Your task to perform on an android device: turn notification dots on Image 0: 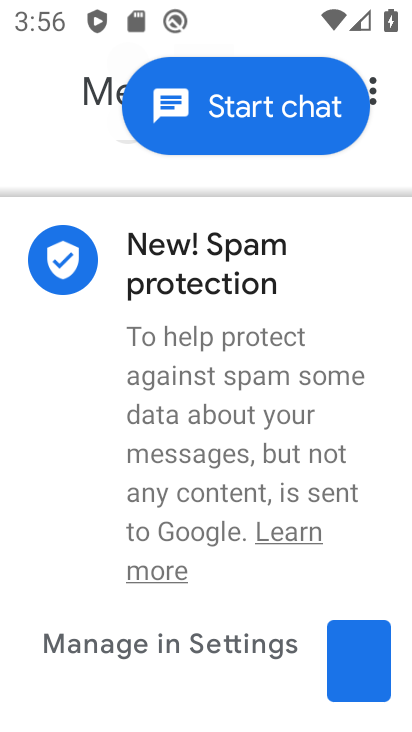
Step 0: press home button
Your task to perform on an android device: turn notification dots on Image 1: 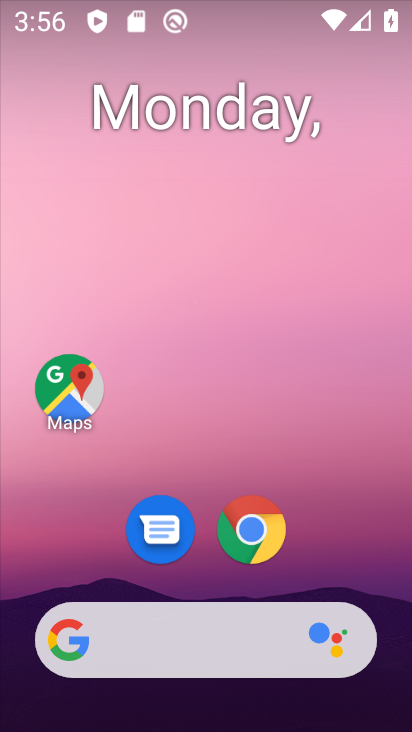
Step 1: drag from (210, 595) to (337, 10)
Your task to perform on an android device: turn notification dots on Image 2: 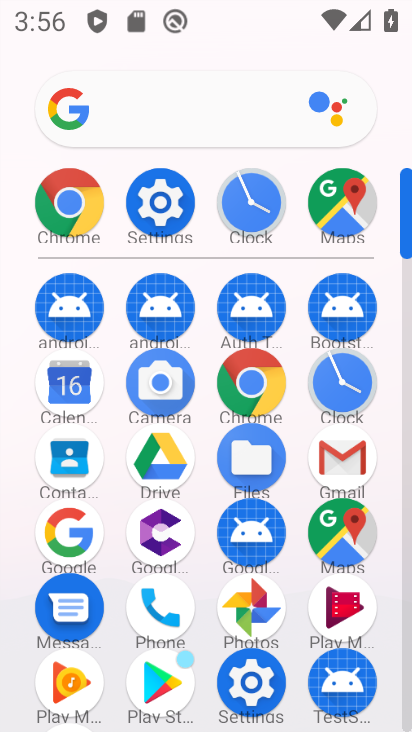
Step 2: click (167, 210)
Your task to perform on an android device: turn notification dots on Image 3: 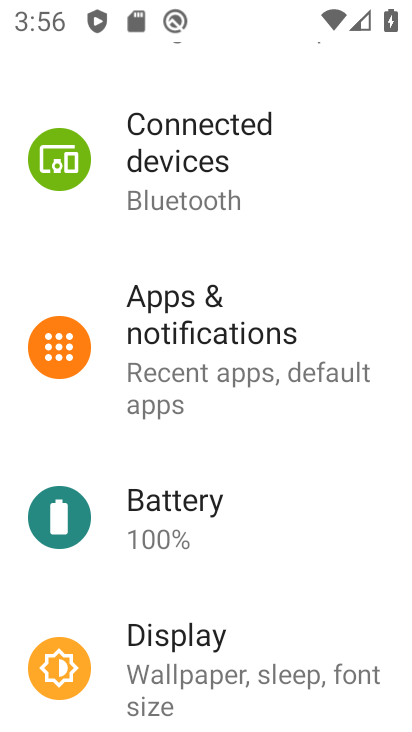
Step 3: drag from (209, 529) to (293, 47)
Your task to perform on an android device: turn notification dots on Image 4: 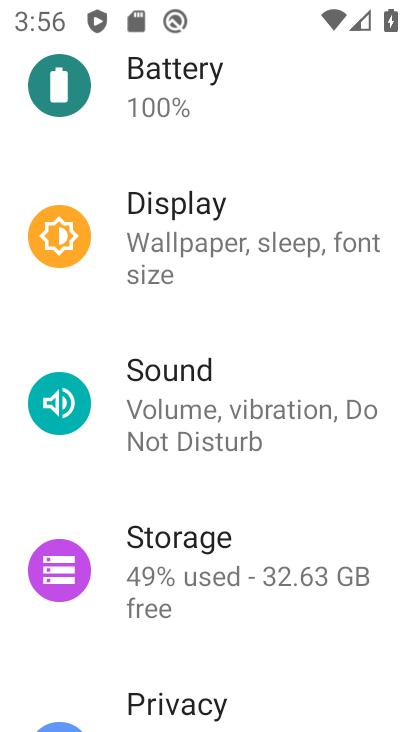
Step 4: drag from (209, 551) to (236, 722)
Your task to perform on an android device: turn notification dots on Image 5: 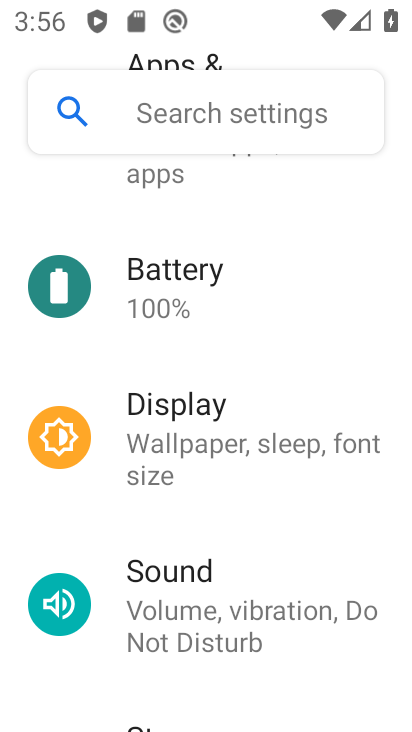
Step 5: drag from (250, 316) to (210, 700)
Your task to perform on an android device: turn notification dots on Image 6: 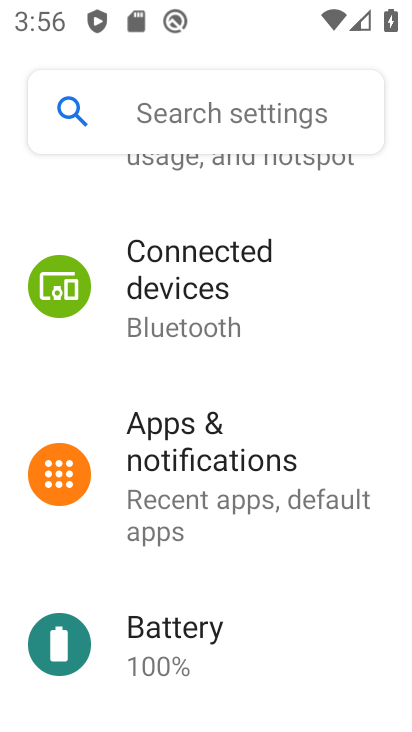
Step 6: drag from (266, 318) to (264, 439)
Your task to perform on an android device: turn notification dots on Image 7: 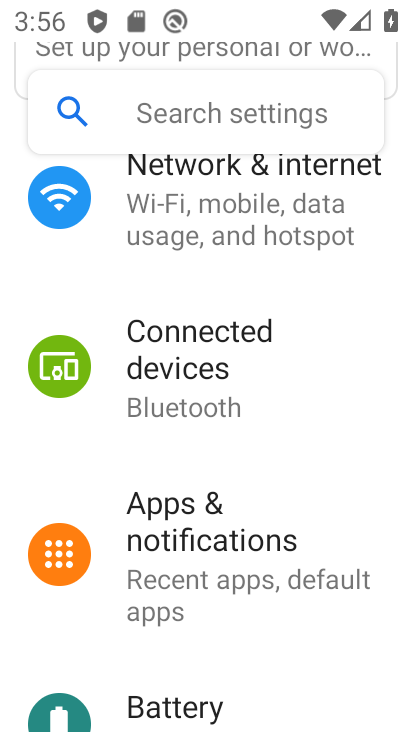
Step 7: click (193, 564)
Your task to perform on an android device: turn notification dots on Image 8: 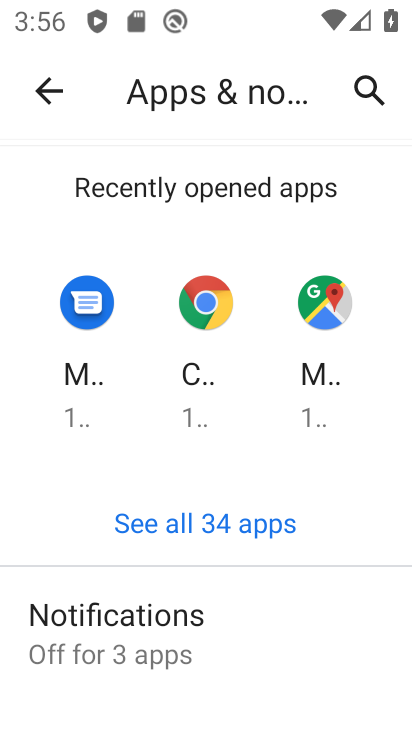
Step 8: drag from (195, 597) to (295, 132)
Your task to perform on an android device: turn notification dots on Image 9: 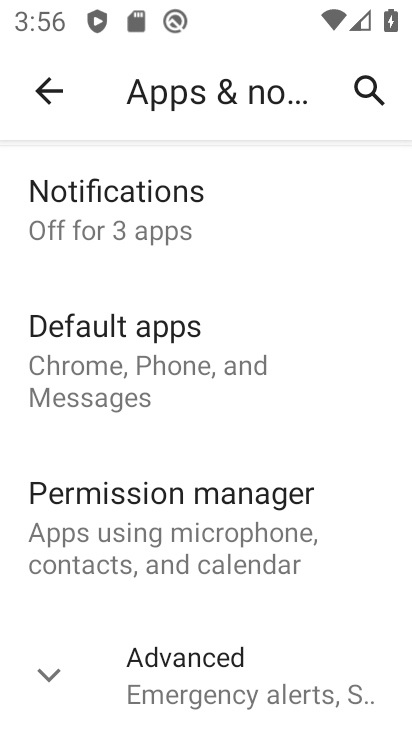
Step 9: drag from (199, 562) to (253, 151)
Your task to perform on an android device: turn notification dots on Image 10: 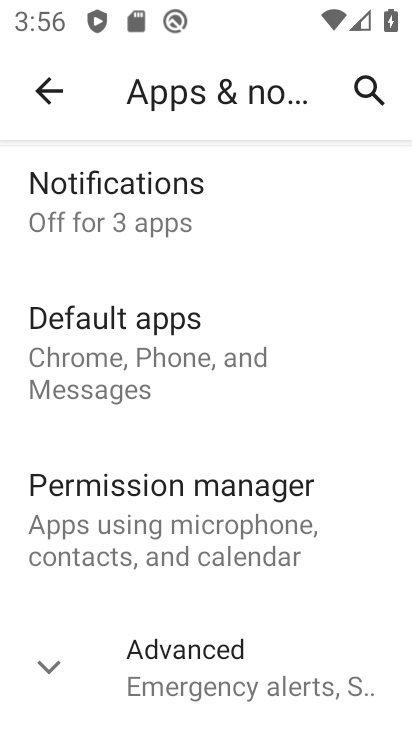
Step 10: click (56, 663)
Your task to perform on an android device: turn notification dots on Image 11: 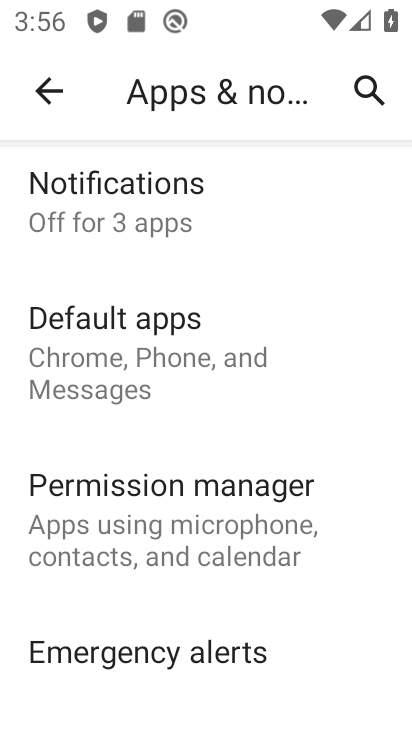
Step 11: click (130, 231)
Your task to perform on an android device: turn notification dots on Image 12: 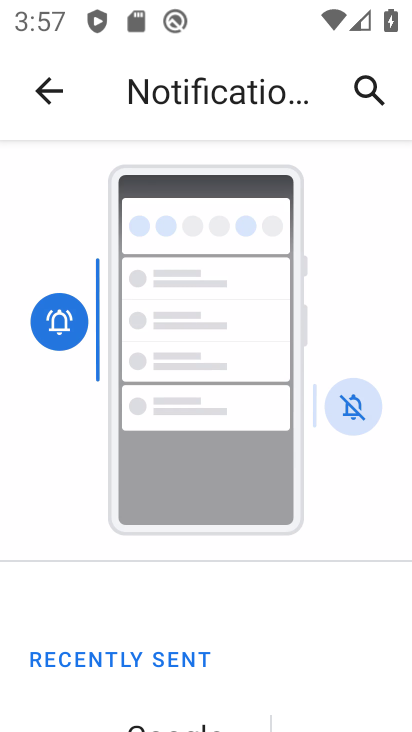
Step 12: drag from (206, 634) to (293, 221)
Your task to perform on an android device: turn notification dots on Image 13: 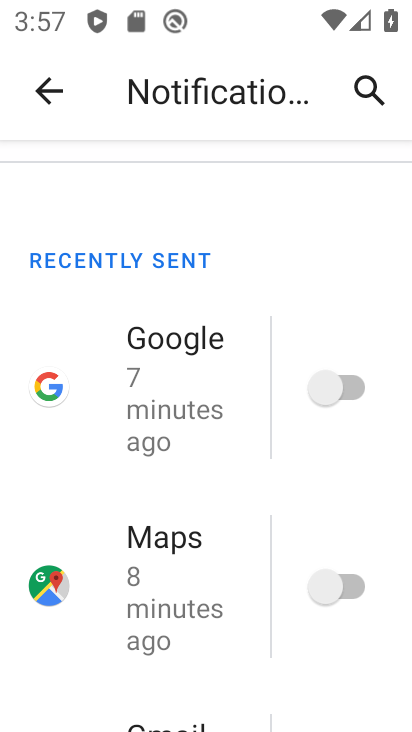
Step 13: drag from (221, 604) to (288, 219)
Your task to perform on an android device: turn notification dots on Image 14: 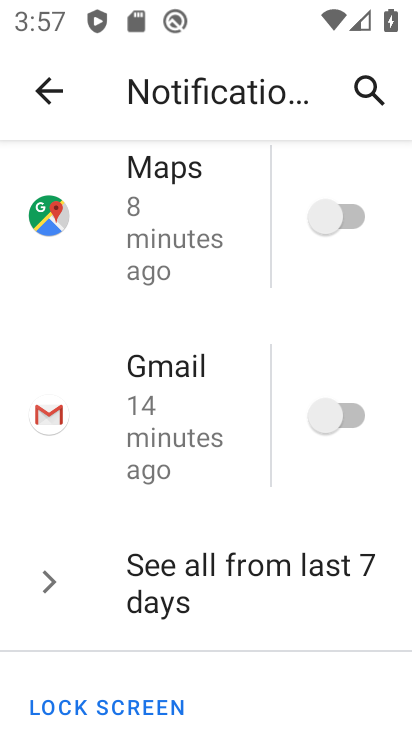
Step 14: drag from (192, 609) to (289, 126)
Your task to perform on an android device: turn notification dots on Image 15: 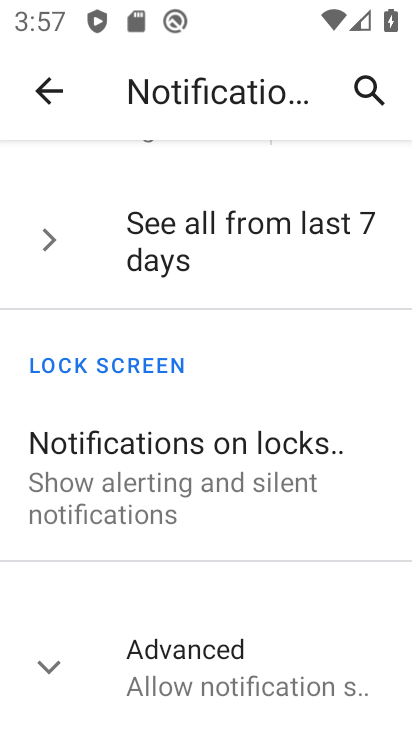
Step 15: click (189, 664)
Your task to perform on an android device: turn notification dots on Image 16: 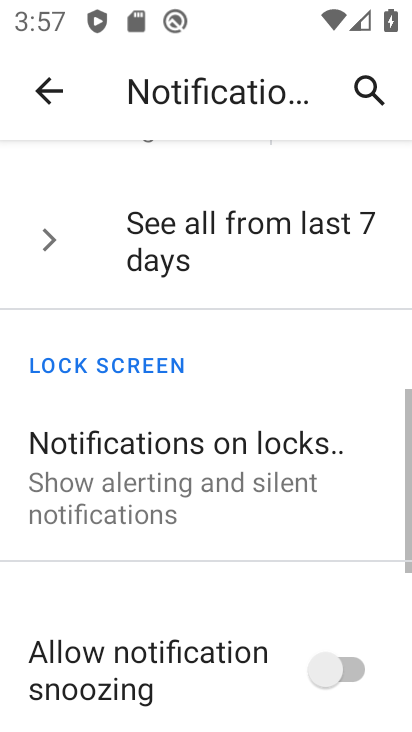
Step 16: task complete